Your task to perform on an android device: clear all cookies in the chrome app Image 0: 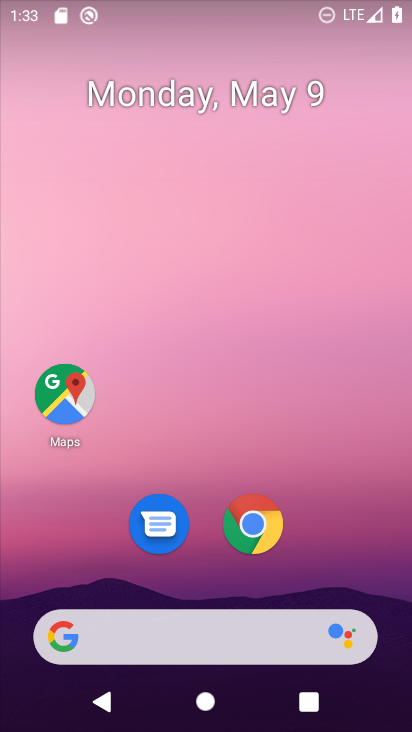
Step 0: click (260, 530)
Your task to perform on an android device: clear all cookies in the chrome app Image 1: 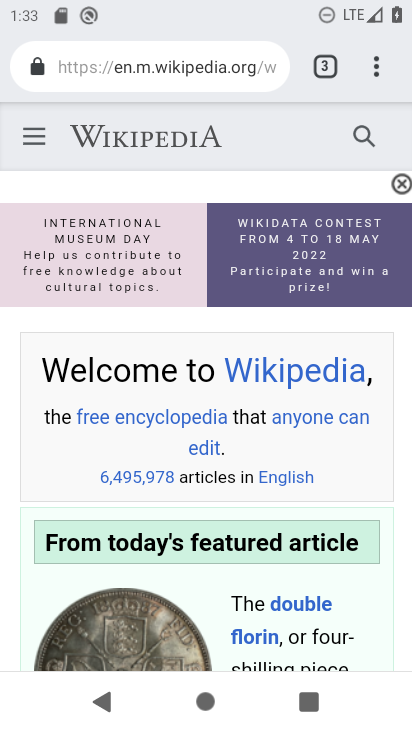
Step 1: click (372, 68)
Your task to perform on an android device: clear all cookies in the chrome app Image 2: 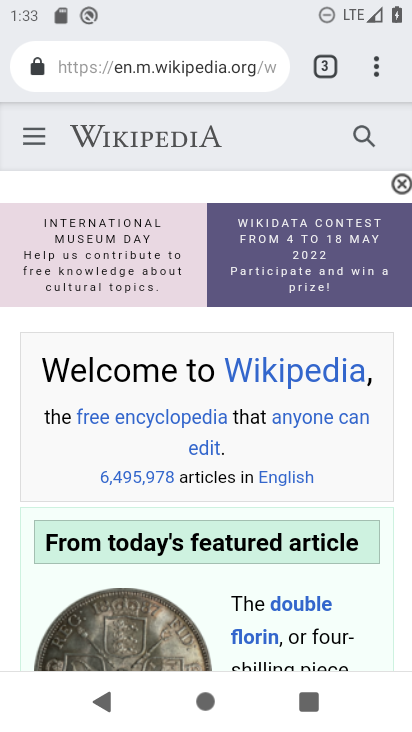
Step 2: click (372, 66)
Your task to perform on an android device: clear all cookies in the chrome app Image 3: 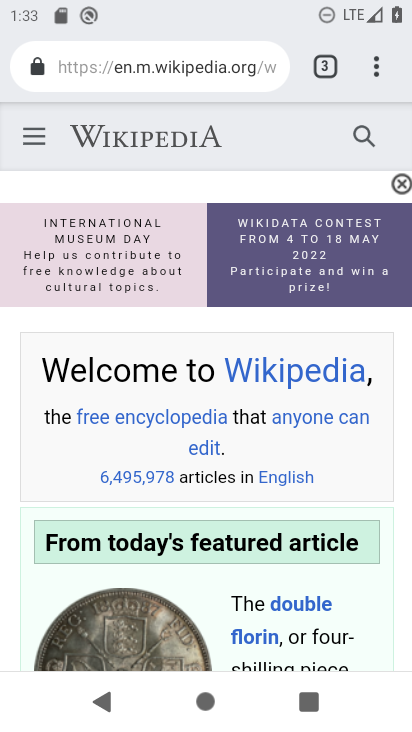
Step 3: click (372, 68)
Your task to perform on an android device: clear all cookies in the chrome app Image 4: 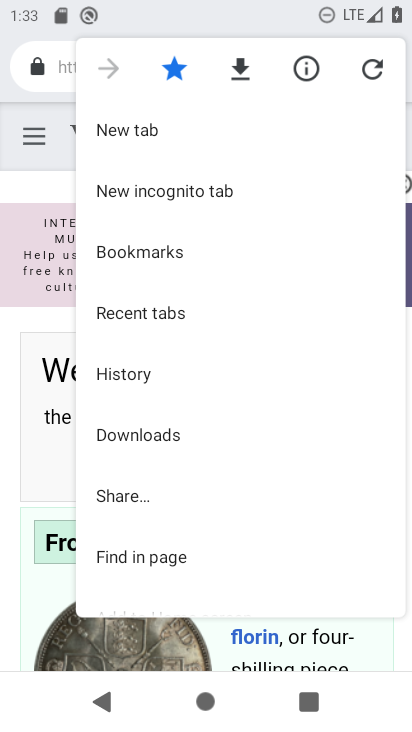
Step 4: drag from (223, 500) to (236, 180)
Your task to perform on an android device: clear all cookies in the chrome app Image 5: 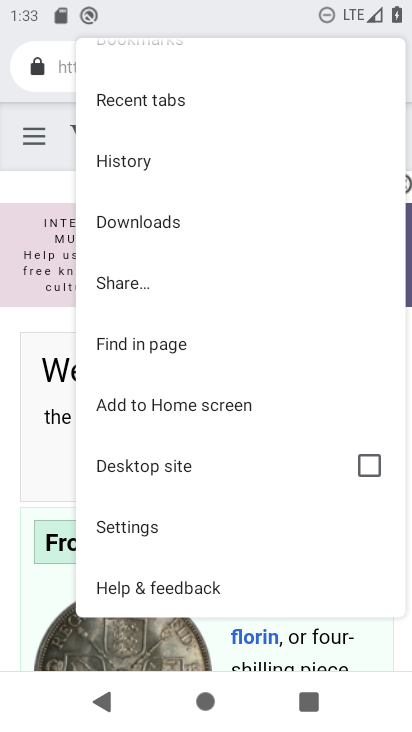
Step 5: click (183, 522)
Your task to perform on an android device: clear all cookies in the chrome app Image 6: 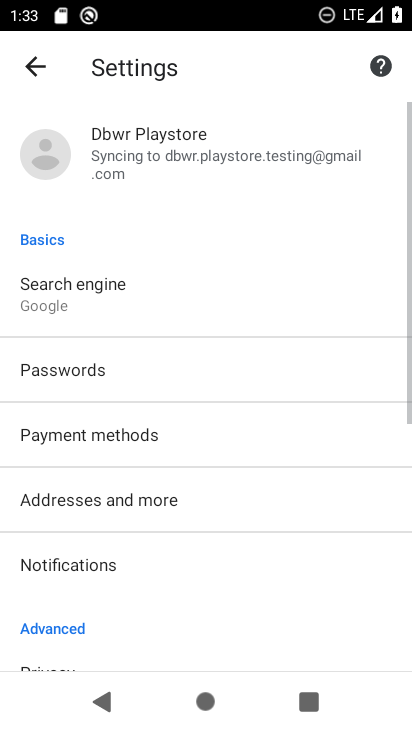
Step 6: drag from (189, 557) to (205, 289)
Your task to perform on an android device: clear all cookies in the chrome app Image 7: 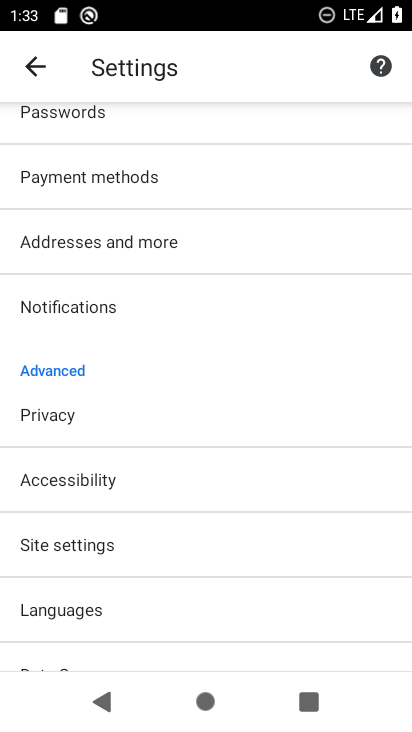
Step 7: click (97, 412)
Your task to perform on an android device: clear all cookies in the chrome app Image 8: 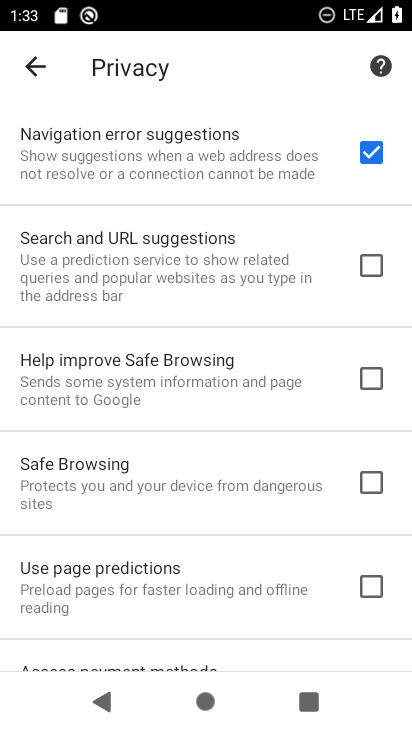
Step 8: drag from (242, 590) to (273, 185)
Your task to perform on an android device: clear all cookies in the chrome app Image 9: 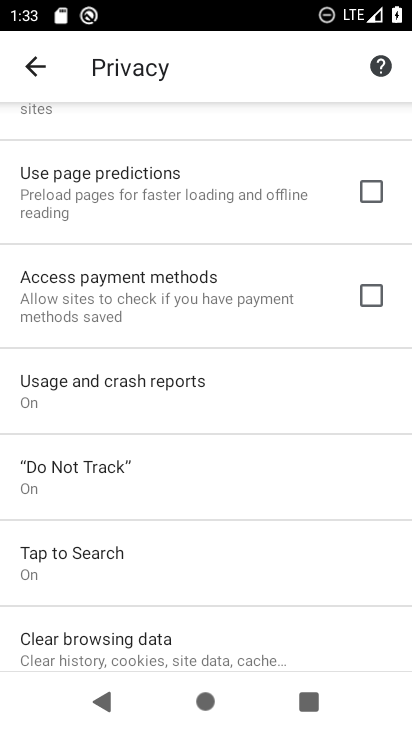
Step 9: click (153, 652)
Your task to perform on an android device: clear all cookies in the chrome app Image 10: 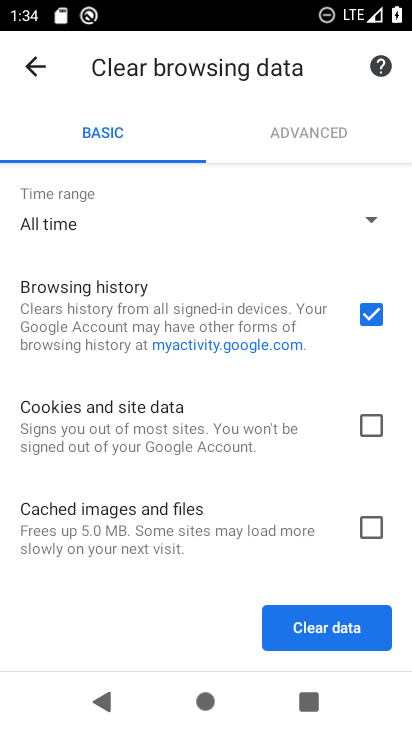
Step 10: click (374, 314)
Your task to perform on an android device: clear all cookies in the chrome app Image 11: 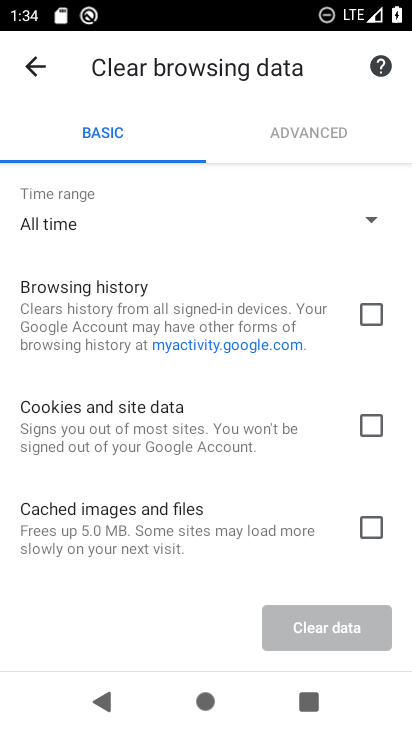
Step 11: click (371, 418)
Your task to perform on an android device: clear all cookies in the chrome app Image 12: 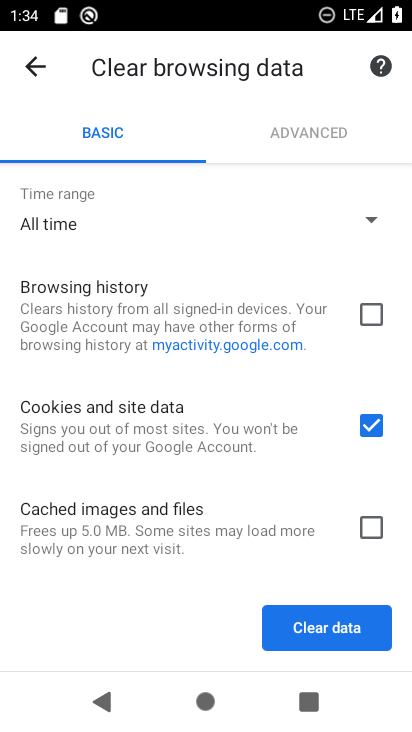
Step 12: click (367, 617)
Your task to perform on an android device: clear all cookies in the chrome app Image 13: 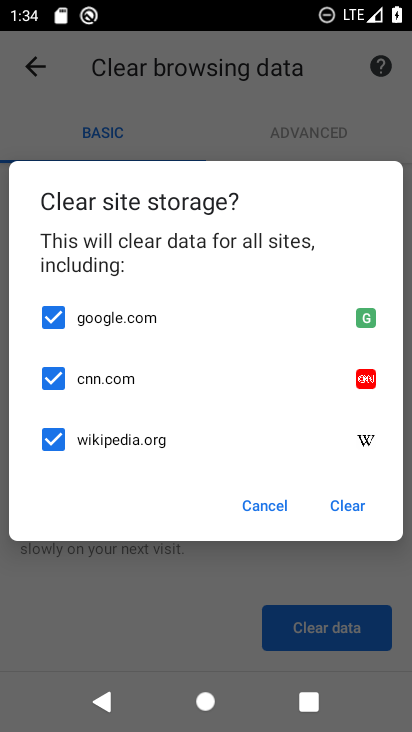
Step 13: click (341, 491)
Your task to perform on an android device: clear all cookies in the chrome app Image 14: 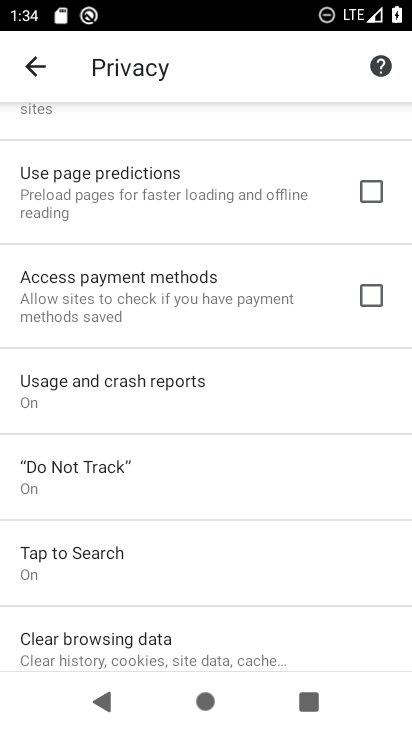
Step 14: task complete